Your task to perform on an android device: add a contact in the contacts app Image 0: 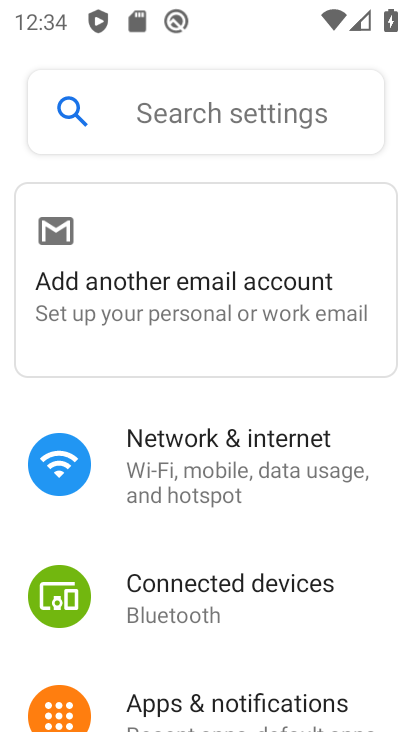
Step 0: press home button
Your task to perform on an android device: add a contact in the contacts app Image 1: 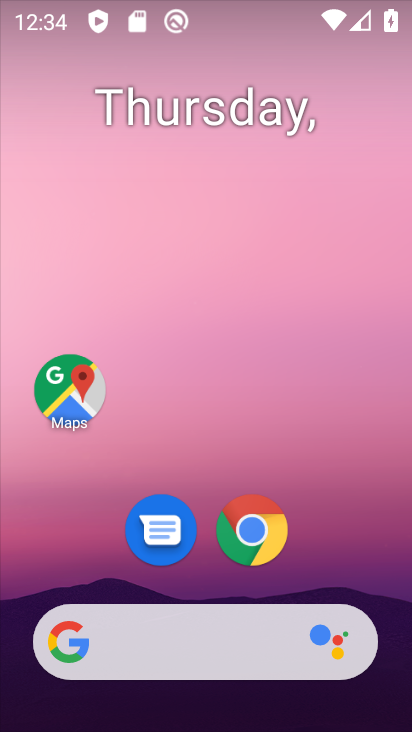
Step 1: drag from (196, 584) to (192, 33)
Your task to perform on an android device: add a contact in the contacts app Image 2: 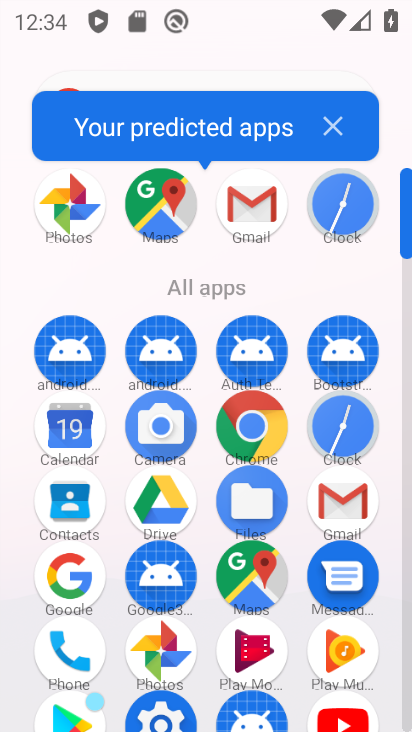
Step 2: click (69, 644)
Your task to perform on an android device: add a contact in the contacts app Image 3: 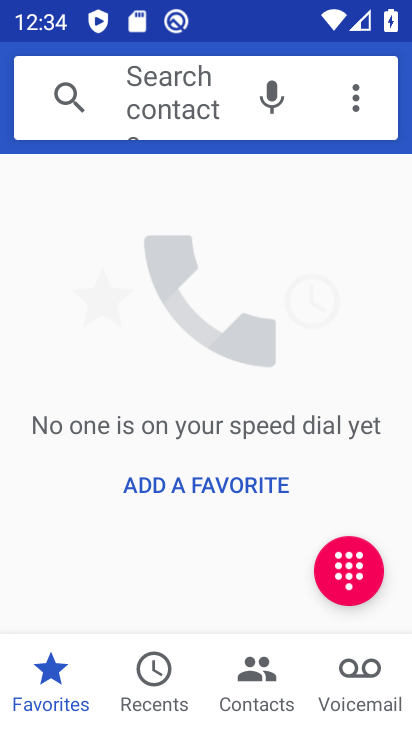
Step 3: click (241, 695)
Your task to perform on an android device: add a contact in the contacts app Image 4: 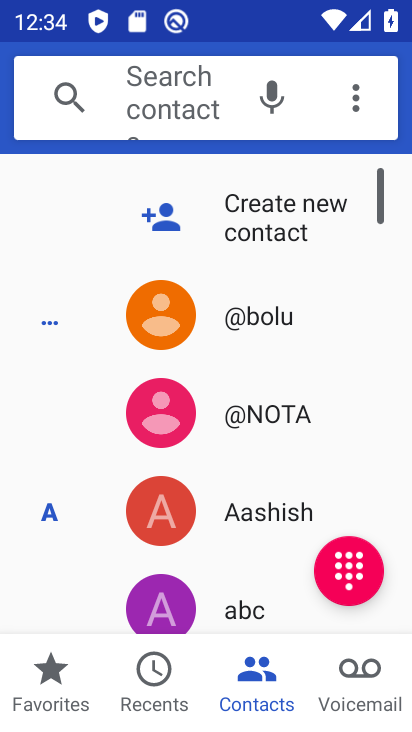
Step 4: click (252, 215)
Your task to perform on an android device: add a contact in the contacts app Image 5: 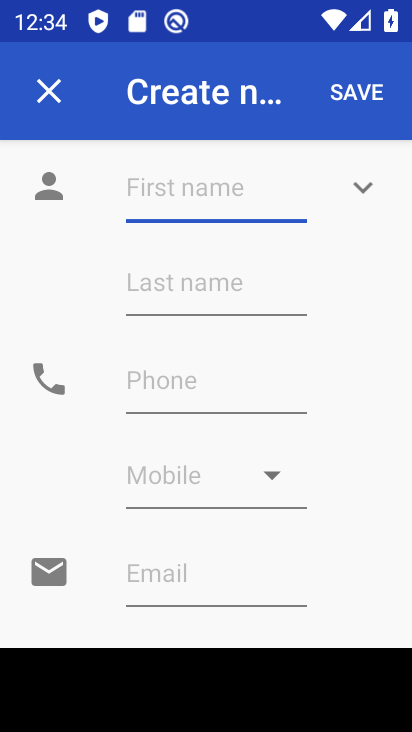
Step 5: type "bhh"
Your task to perform on an android device: add a contact in the contacts app Image 6: 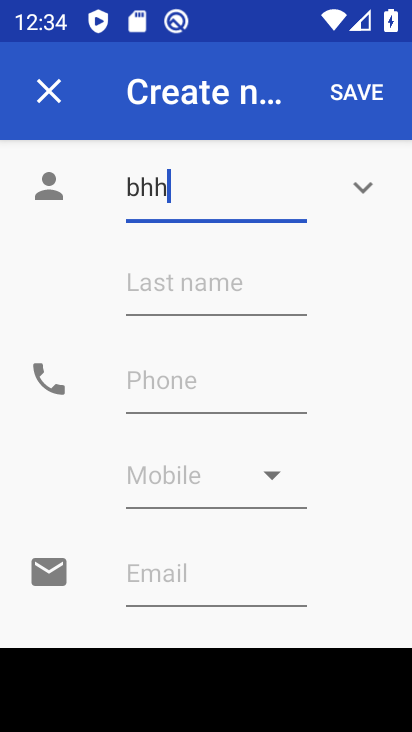
Step 6: type ""
Your task to perform on an android device: add a contact in the contacts app Image 7: 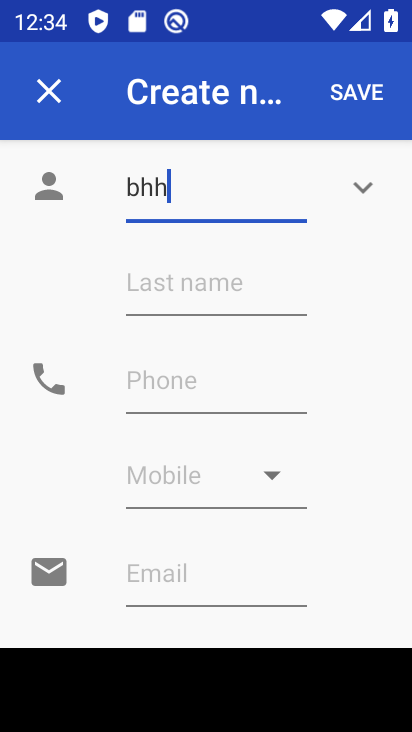
Step 7: click (213, 413)
Your task to perform on an android device: add a contact in the contacts app Image 8: 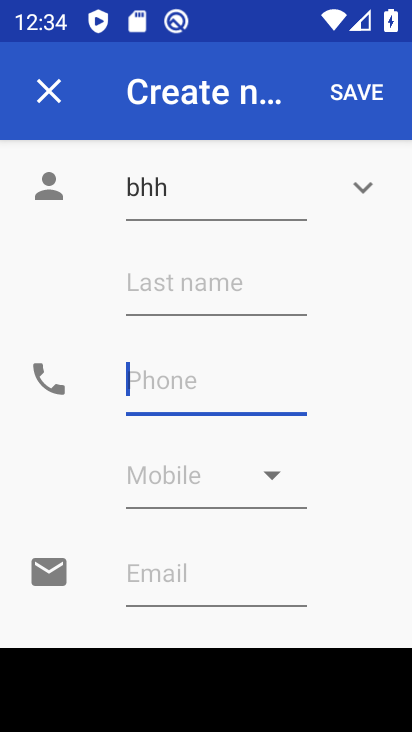
Step 8: type "7654"
Your task to perform on an android device: add a contact in the contacts app Image 9: 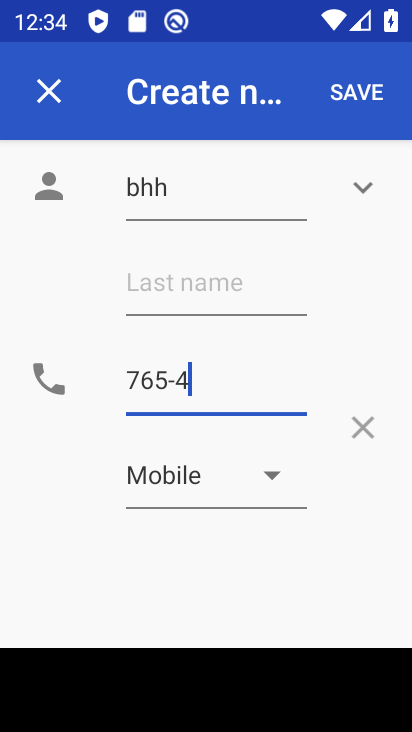
Step 9: type ""
Your task to perform on an android device: add a contact in the contacts app Image 10: 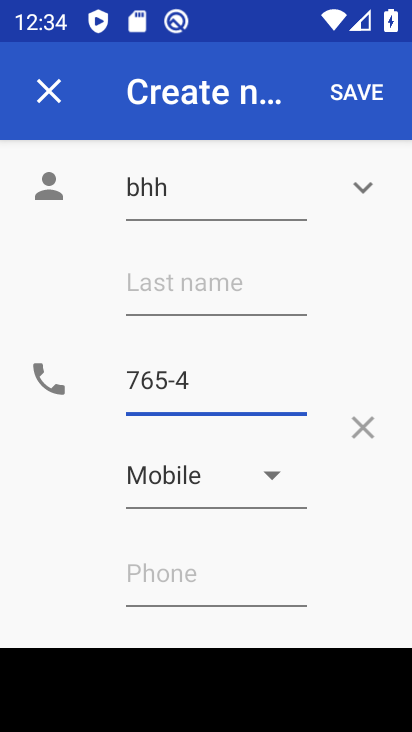
Step 10: click (368, 89)
Your task to perform on an android device: add a contact in the contacts app Image 11: 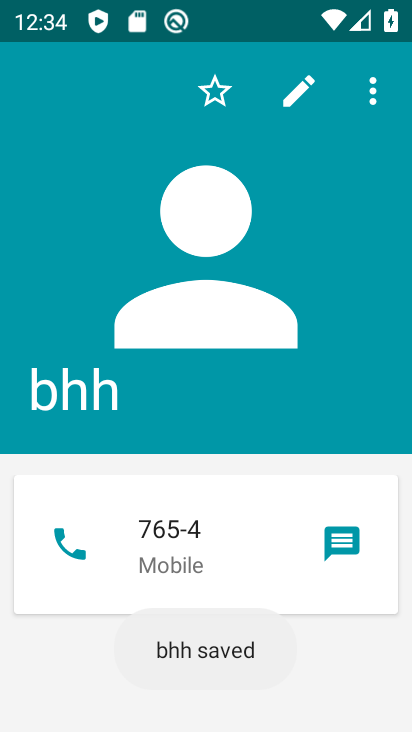
Step 11: task complete